Your task to perform on an android device: Go to settings Image 0: 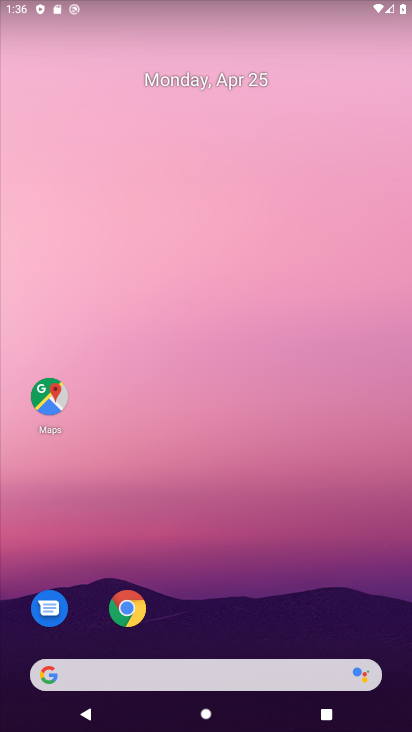
Step 0: drag from (370, 612) to (372, 112)
Your task to perform on an android device: Go to settings Image 1: 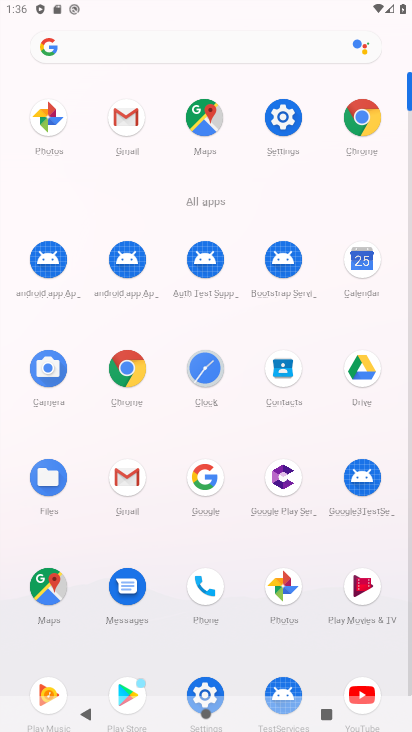
Step 1: click (273, 122)
Your task to perform on an android device: Go to settings Image 2: 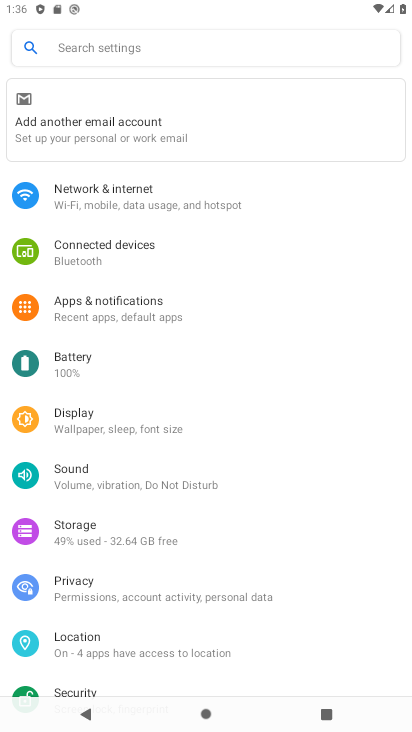
Step 2: task complete